Your task to perform on an android device: Go to sound settings Image 0: 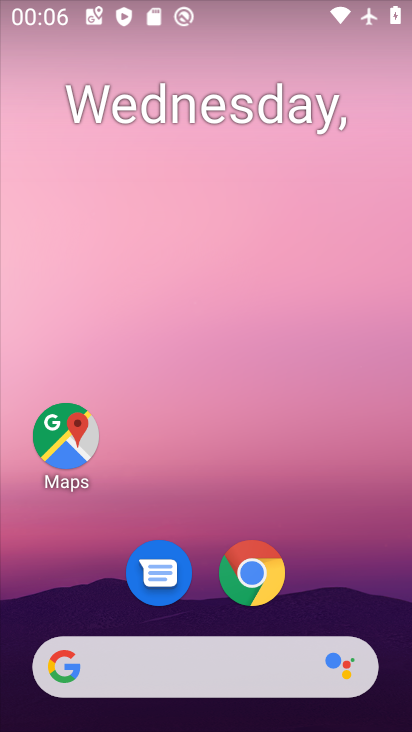
Step 0: drag from (347, 583) to (312, 176)
Your task to perform on an android device: Go to sound settings Image 1: 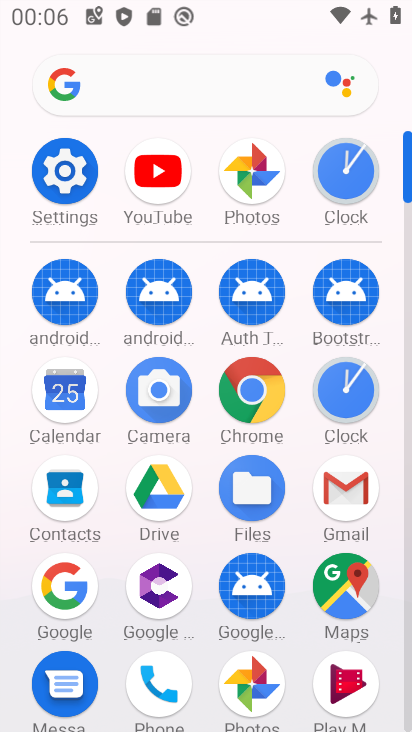
Step 1: click (73, 172)
Your task to perform on an android device: Go to sound settings Image 2: 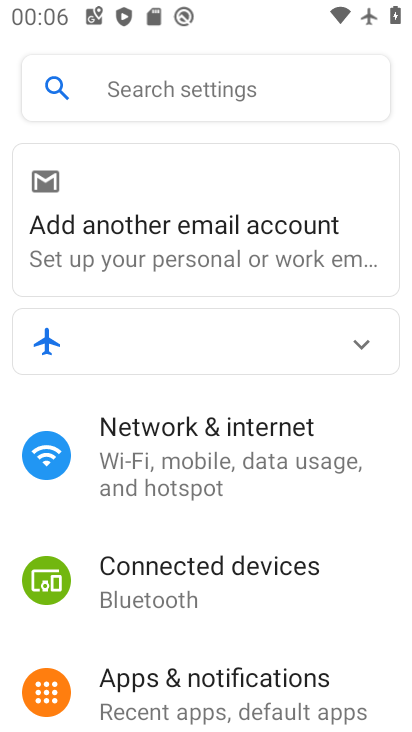
Step 2: drag from (245, 622) to (292, 204)
Your task to perform on an android device: Go to sound settings Image 3: 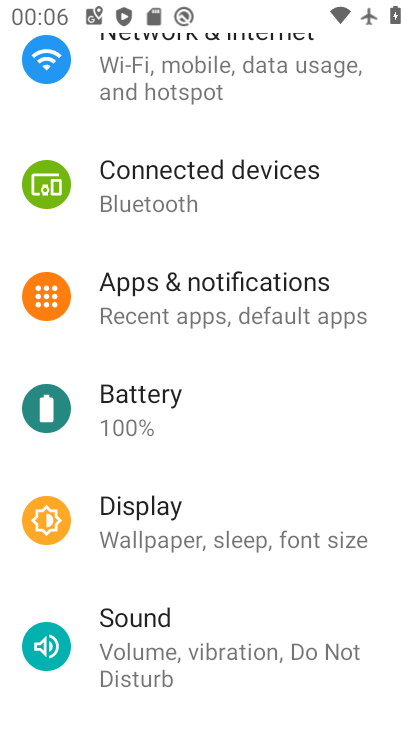
Step 3: click (196, 636)
Your task to perform on an android device: Go to sound settings Image 4: 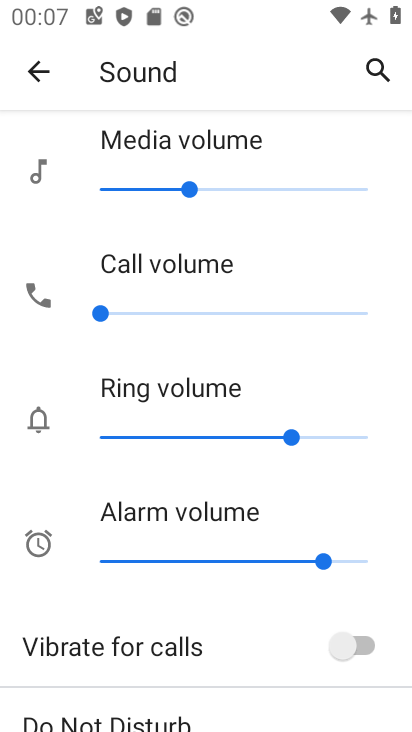
Step 4: task complete